Your task to perform on an android device: see tabs open on other devices in the chrome app Image 0: 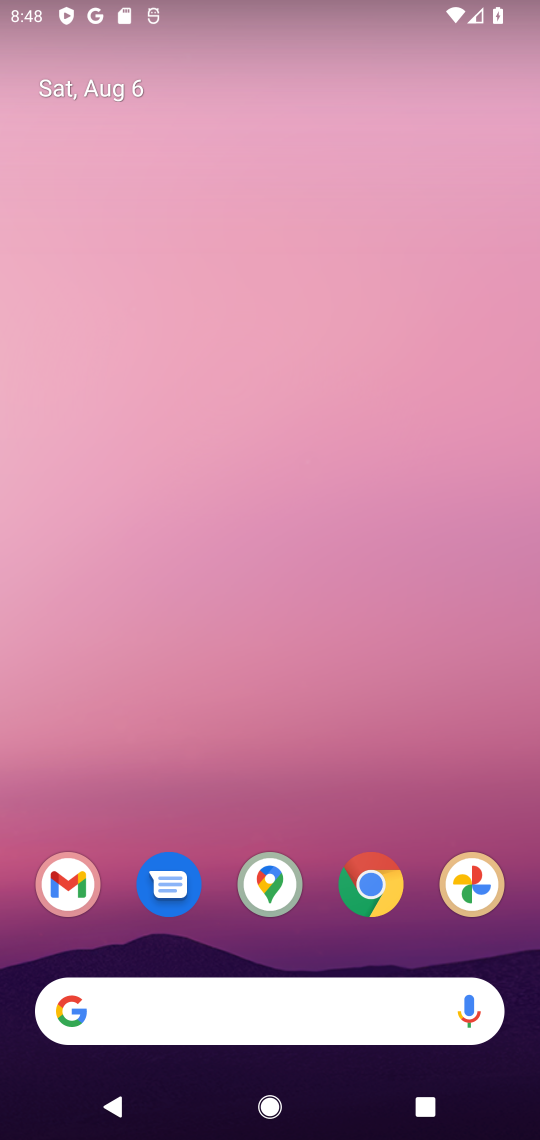
Step 0: click (380, 893)
Your task to perform on an android device: see tabs open on other devices in the chrome app Image 1: 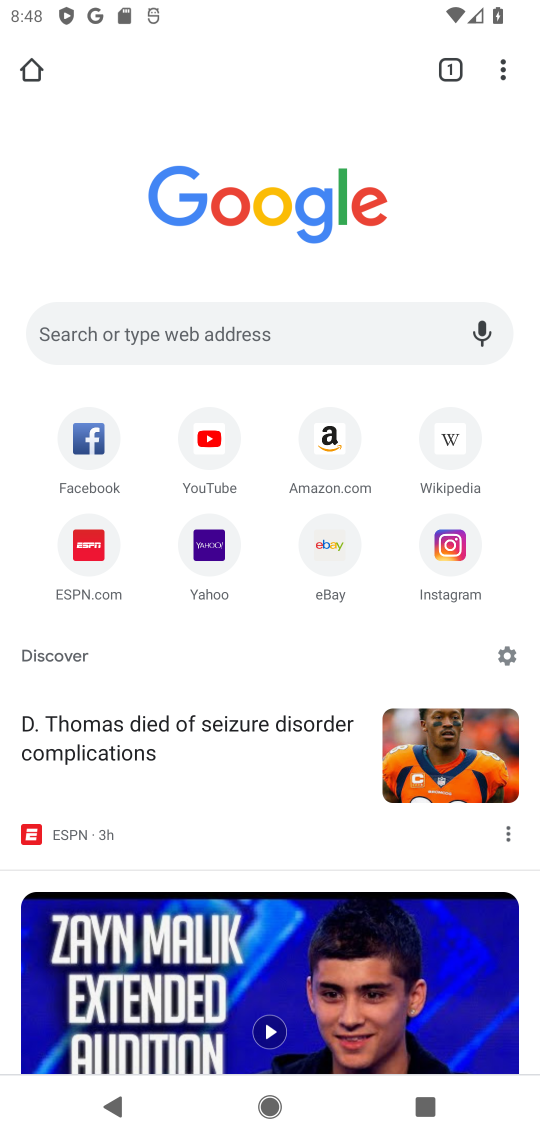
Step 1: click (500, 81)
Your task to perform on an android device: see tabs open on other devices in the chrome app Image 2: 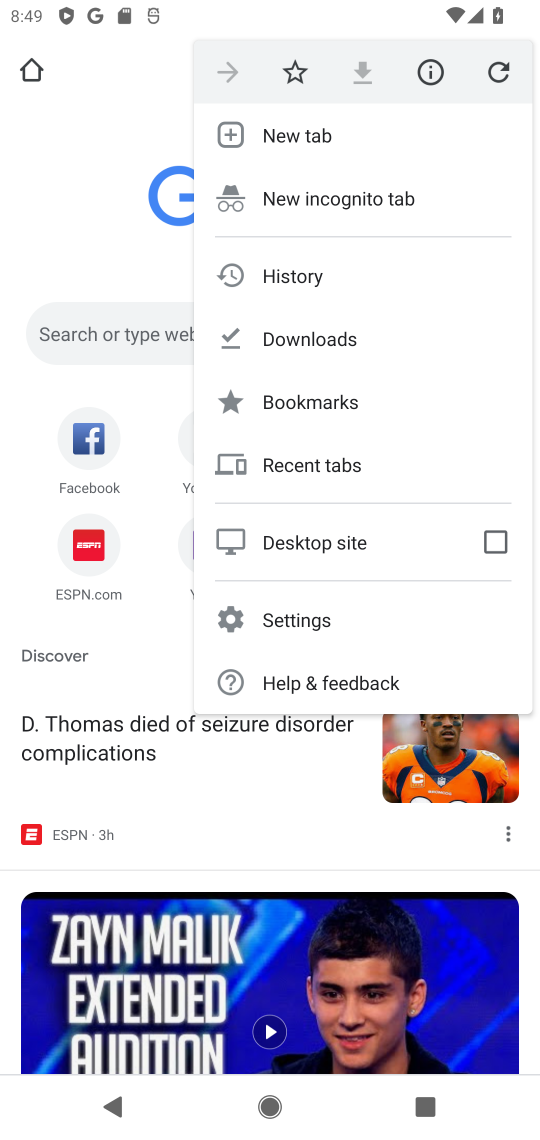
Step 2: click (305, 462)
Your task to perform on an android device: see tabs open on other devices in the chrome app Image 3: 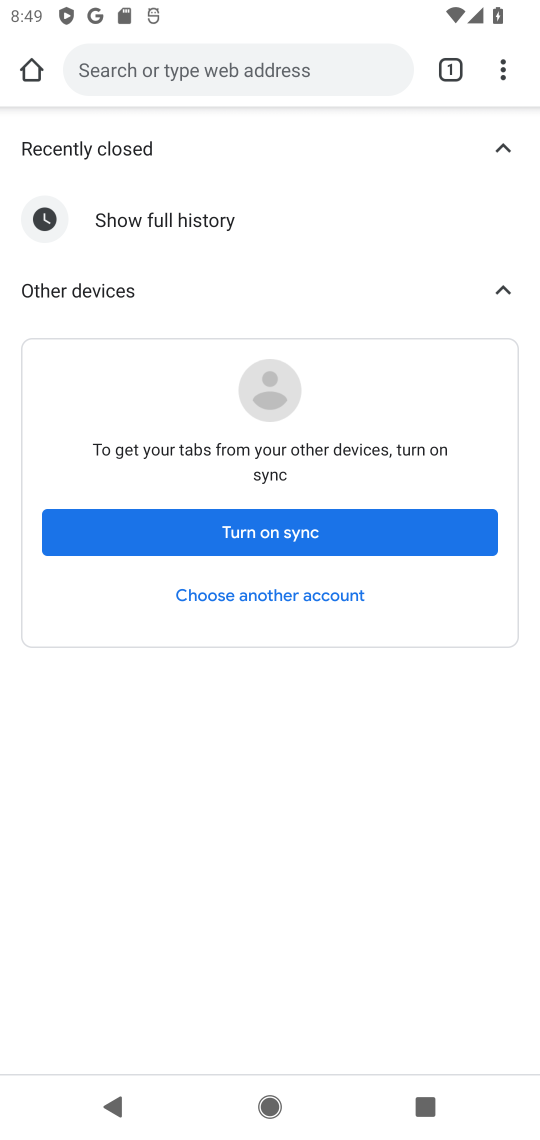
Step 3: click (101, 219)
Your task to perform on an android device: see tabs open on other devices in the chrome app Image 4: 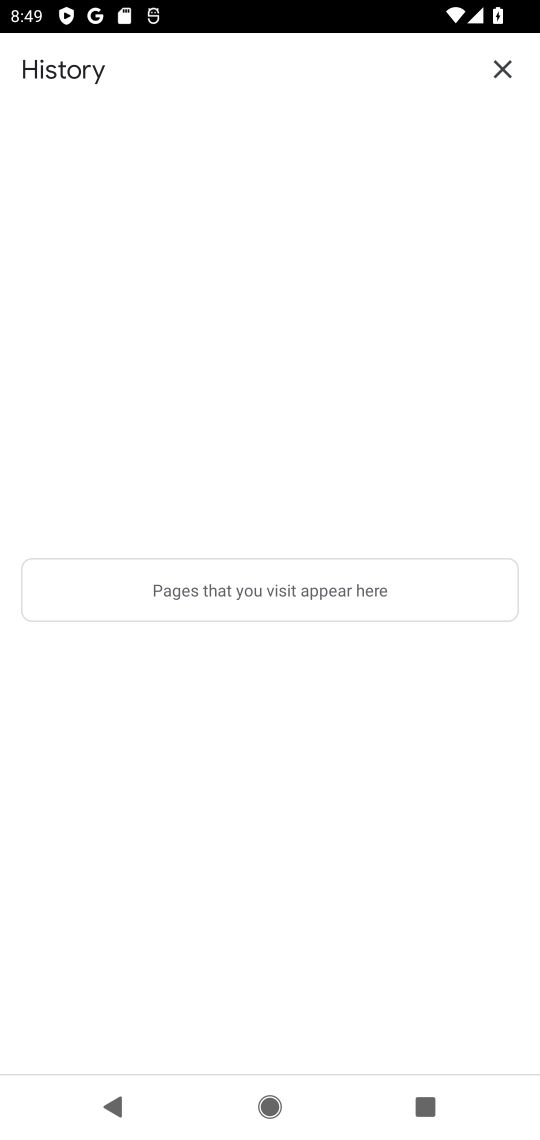
Step 4: click (503, 72)
Your task to perform on an android device: see tabs open on other devices in the chrome app Image 5: 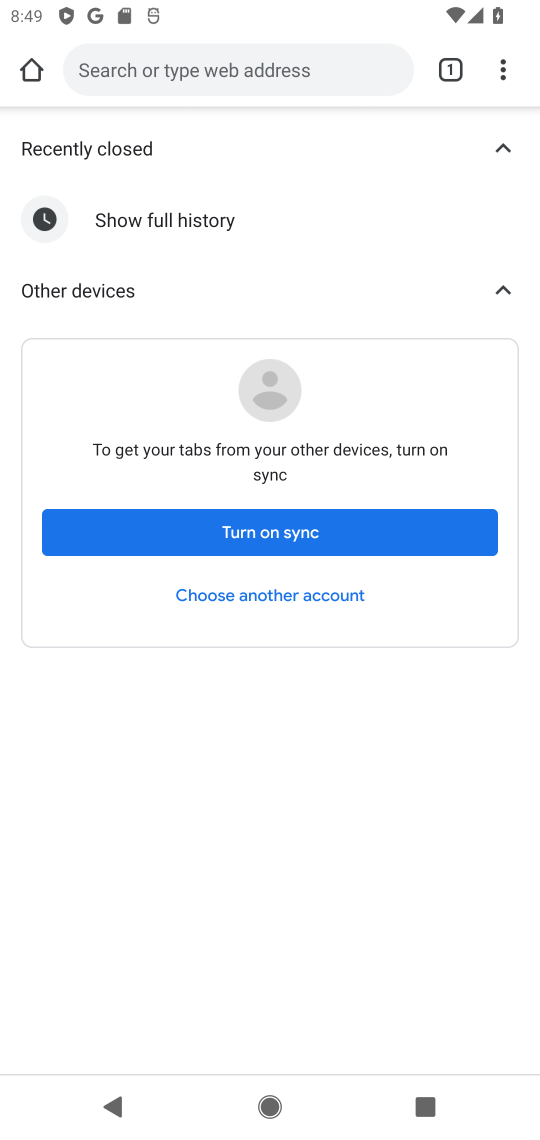
Step 5: click (249, 530)
Your task to perform on an android device: see tabs open on other devices in the chrome app Image 6: 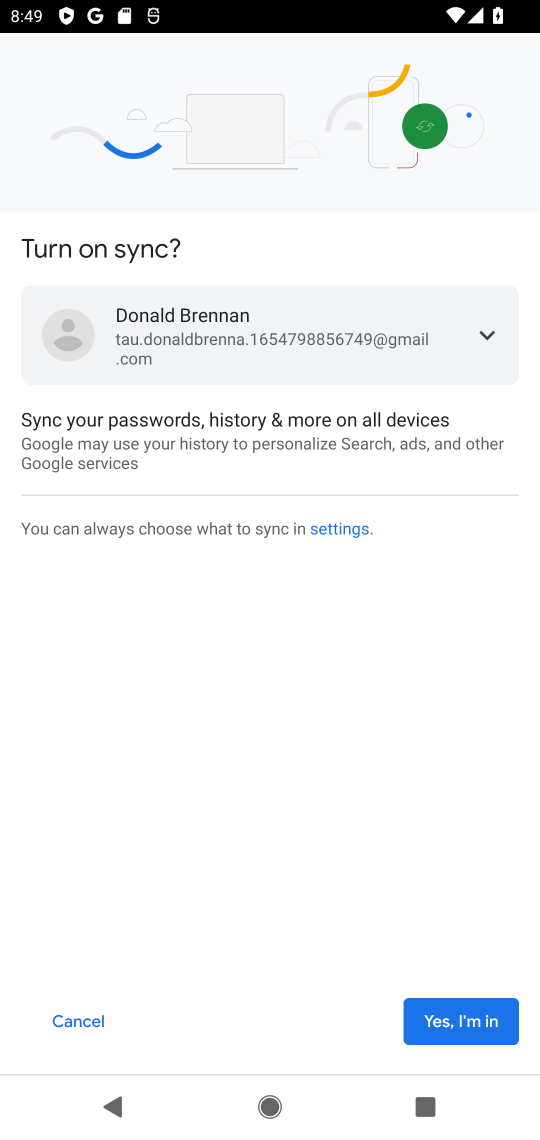
Step 6: click (452, 1017)
Your task to perform on an android device: see tabs open on other devices in the chrome app Image 7: 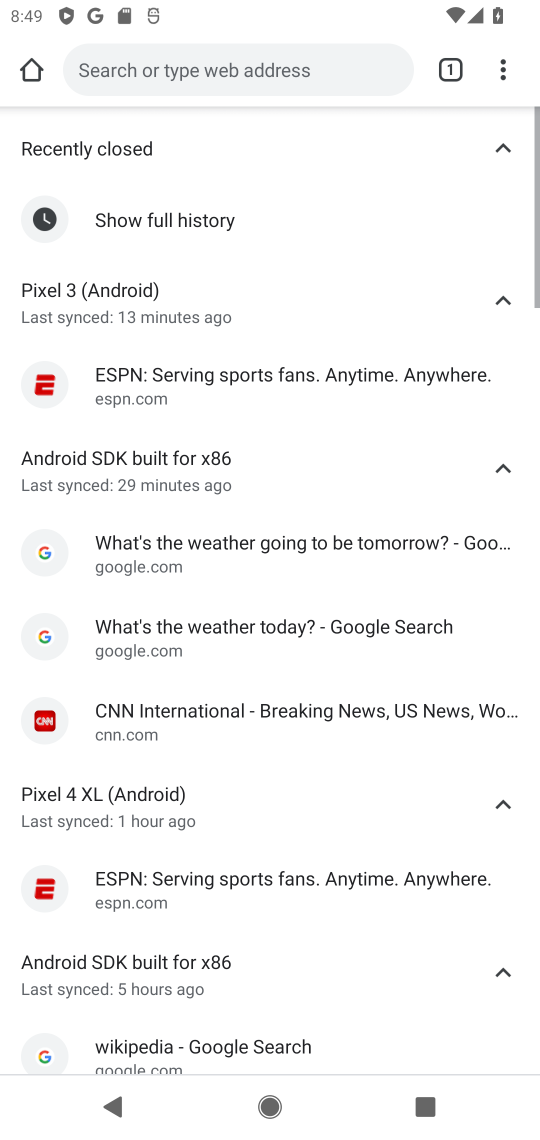
Step 7: task complete